Your task to perform on an android device: Search for the best books on Goodreads. Image 0: 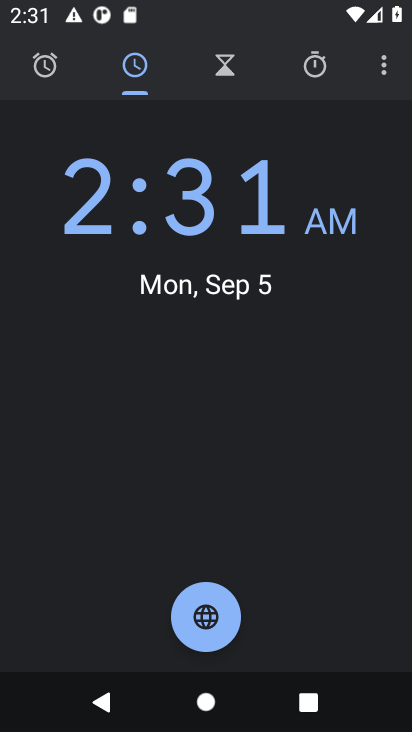
Step 0: press home button
Your task to perform on an android device: Search for the best books on Goodreads. Image 1: 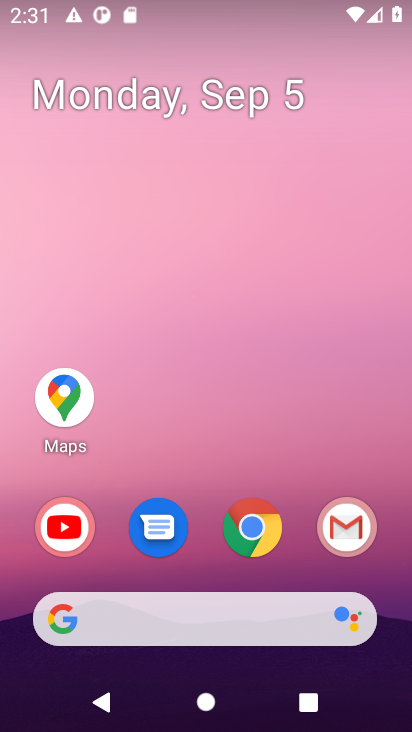
Step 1: click (262, 525)
Your task to perform on an android device: Search for the best books on Goodreads. Image 2: 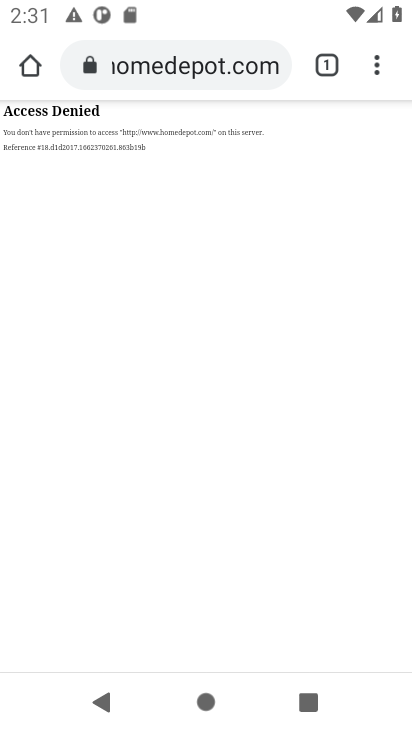
Step 2: click (188, 71)
Your task to perform on an android device: Search for the best books on Goodreads. Image 3: 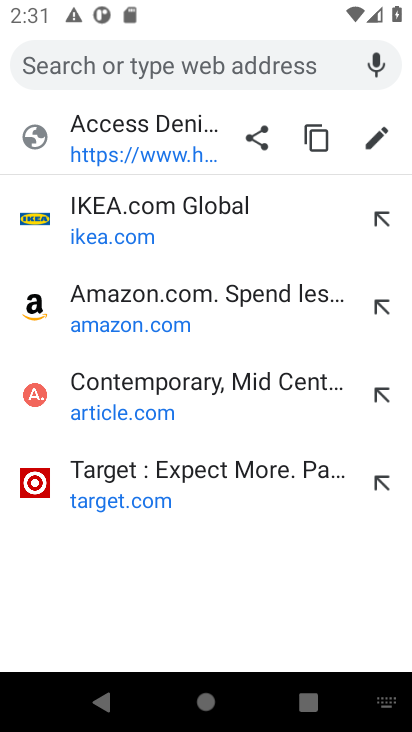
Step 3: type "good reads"
Your task to perform on an android device: Search for the best books on Goodreads. Image 4: 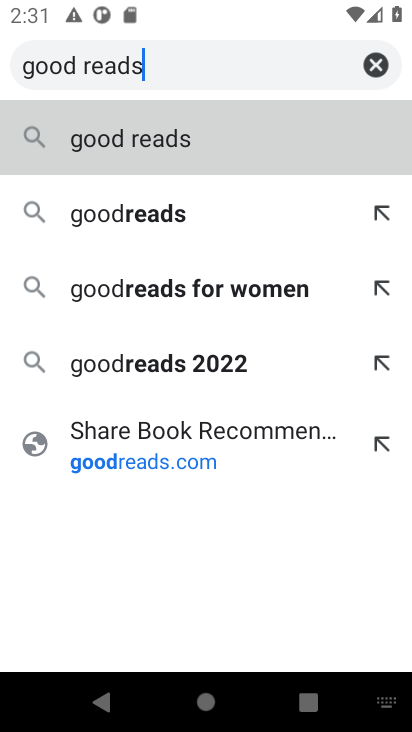
Step 4: click (166, 215)
Your task to perform on an android device: Search for the best books on Goodreads. Image 5: 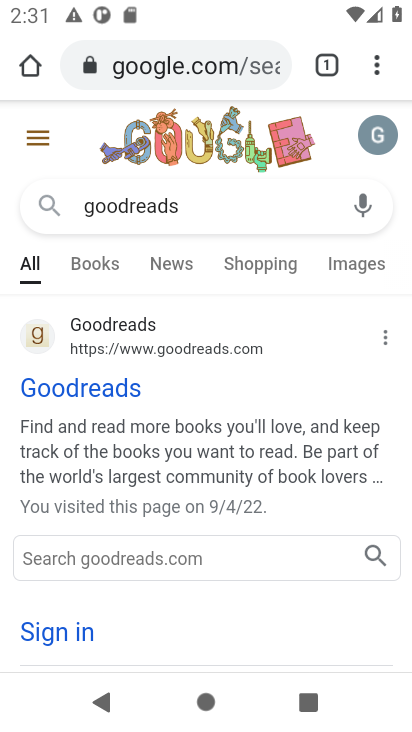
Step 5: click (122, 389)
Your task to perform on an android device: Search for the best books on Goodreads. Image 6: 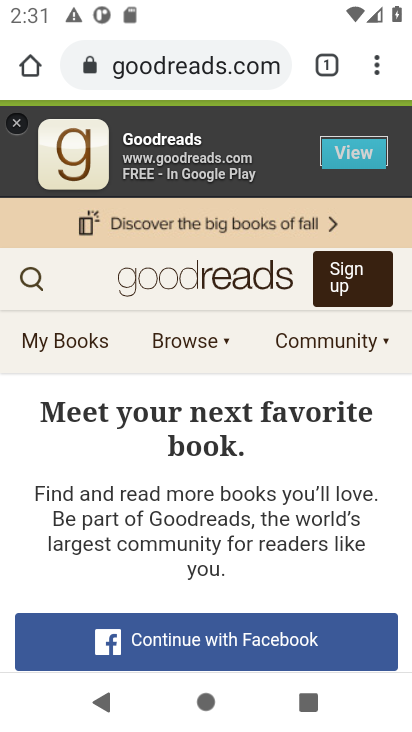
Step 6: click (44, 282)
Your task to perform on an android device: Search for the best books on Goodreads. Image 7: 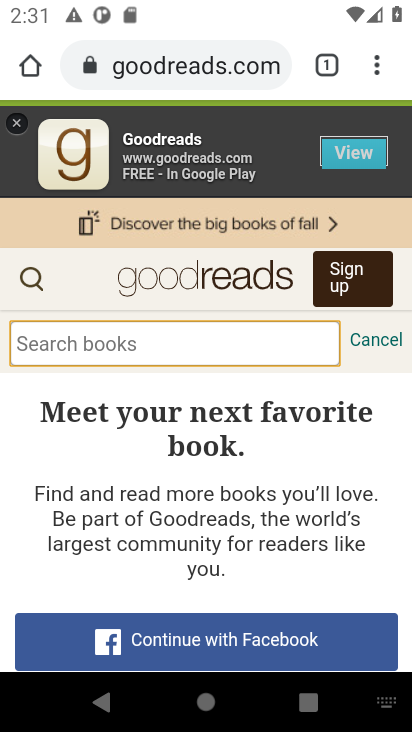
Step 7: type "the best books"
Your task to perform on an android device: Search for the best books on Goodreads. Image 8: 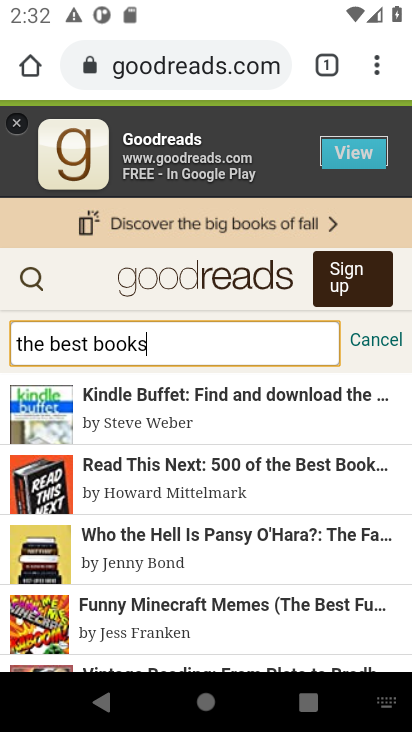
Step 8: task complete